Your task to perform on an android device: clear all cookies in the chrome app Image 0: 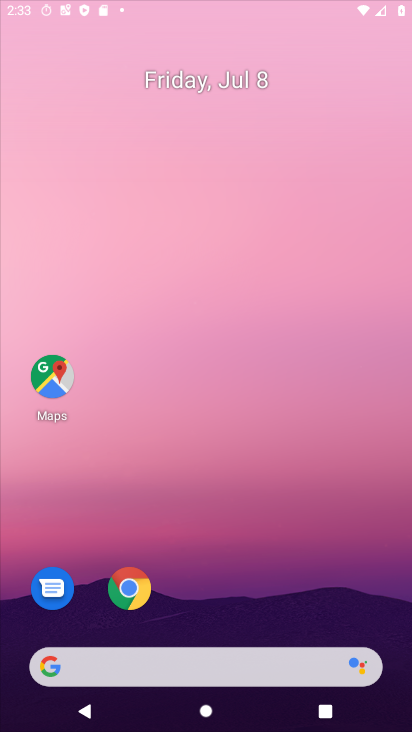
Step 0: press home button
Your task to perform on an android device: clear all cookies in the chrome app Image 1: 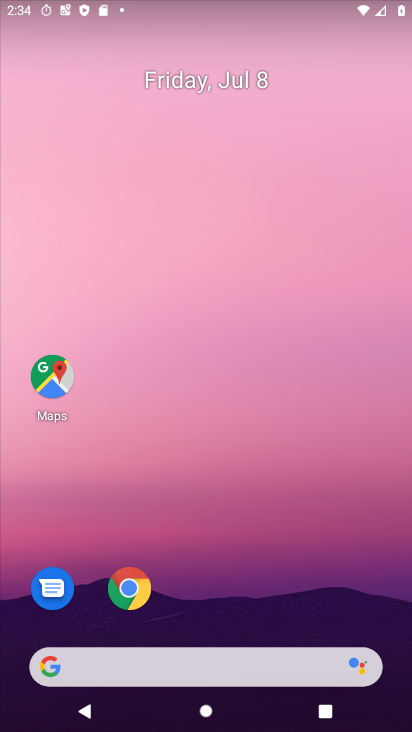
Step 1: drag from (242, 623) to (228, 0)
Your task to perform on an android device: clear all cookies in the chrome app Image 2: 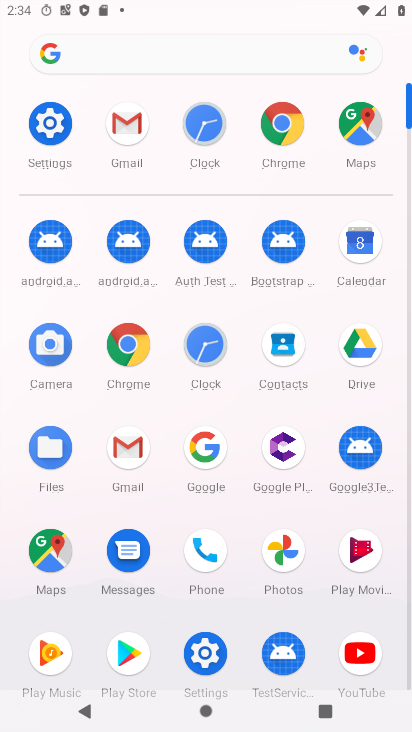
Step 2: click (280, 114)
Your task to perform on an android device: clear all cookies in the chrome app Image 3: 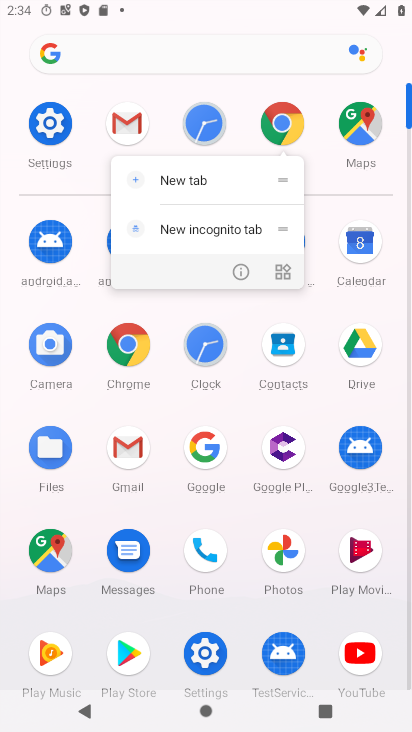
Step 3: click (289, 131)
Your task to perform on an android device: clear all cookies in the chrome app Image 4: 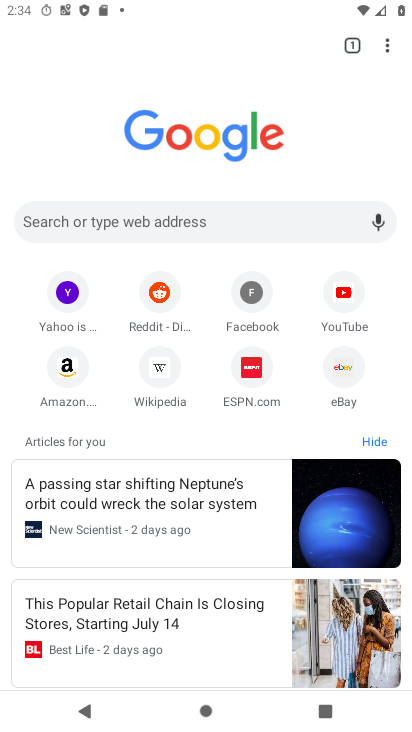
Step 4: click (387, 47)
Your task to perform on an android device: clear all cookies in the chrome app Image 5: 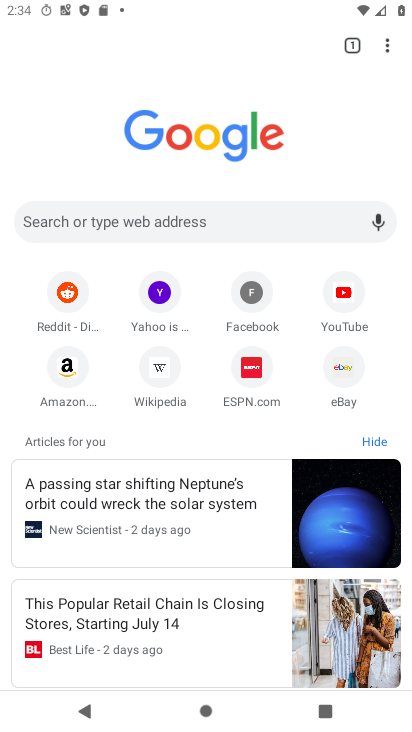
Step 5: drag from (387, 47) to (232, 374)
Your task to perform on an android device: clear all cookies in the chrome app Image 6: 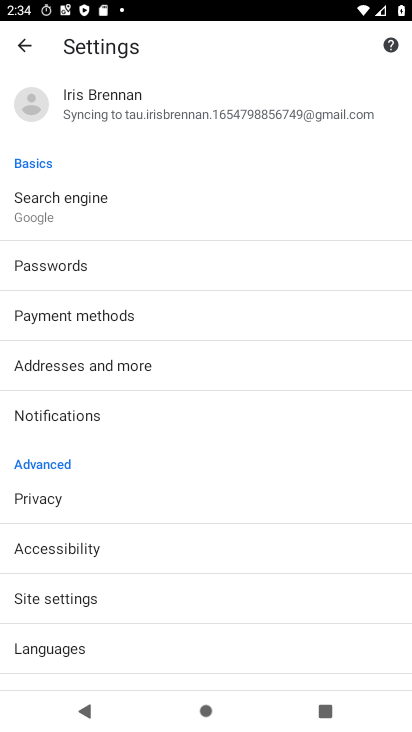
Step 6: click (33, 505)
Your task to perform on an android device: clear all cookies in the chrome app Image 7: 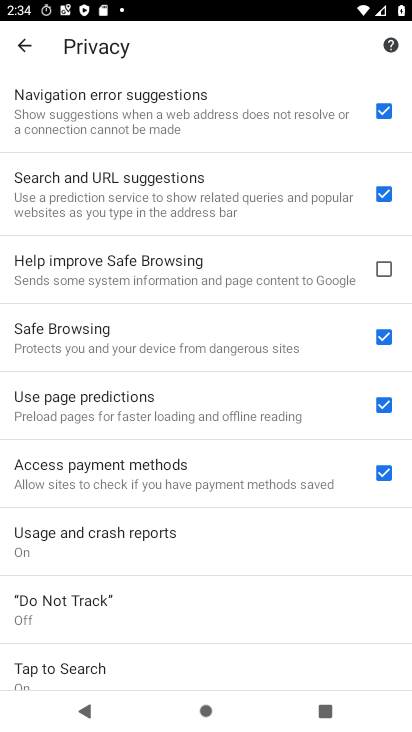
Step 7: drag from (191, 609) to (246, 2)
Your task to perform on an android device: clear all cookies in the chrome app Image 8: 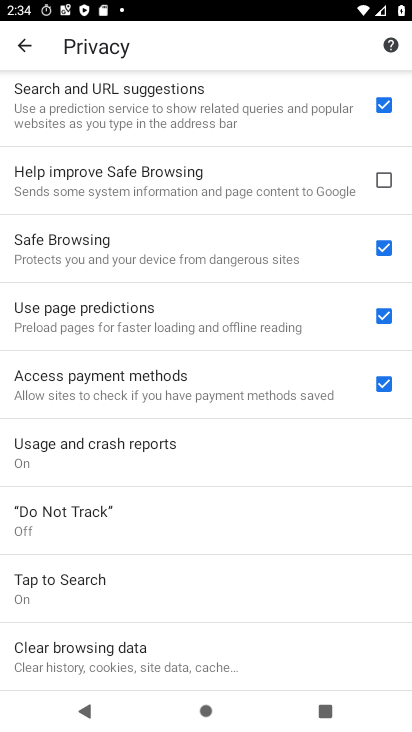
Step 8: click (85, 650)
Your task to perform on an android device: clear all cookies in the chrome app Image 9: 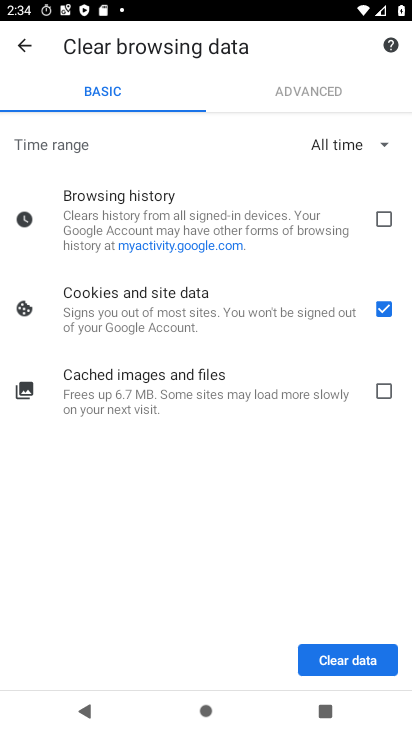
Step 9: click (339, 670)
Your task to perform on an android device: clear all cookies in the chrome app Image 10: 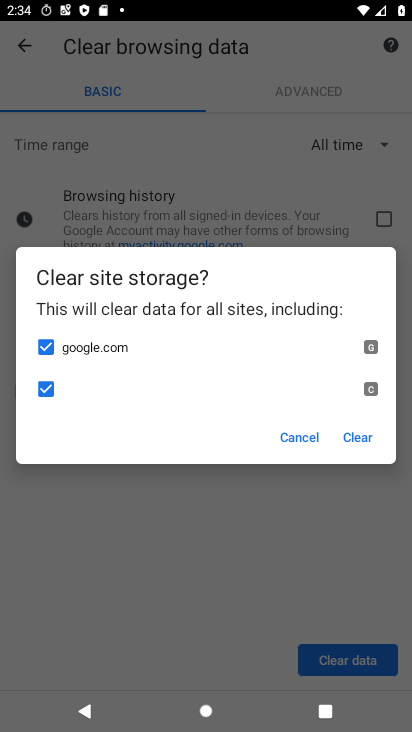
Step 10: click (350, 439)
Your task to perform on an android device: clear all cookies in the chrome app Image 11: 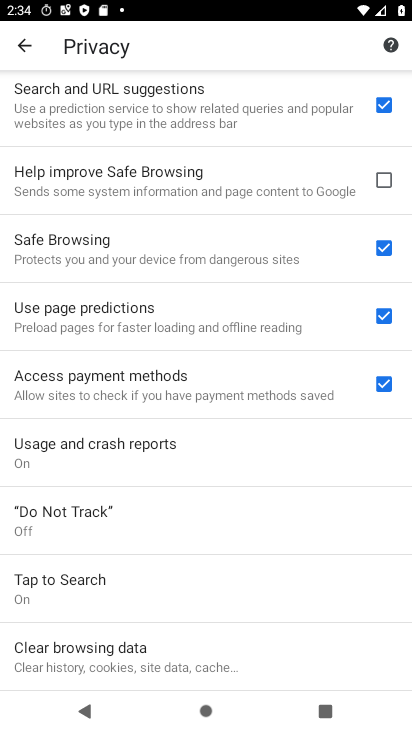
Step 11: task complete